Your task to perform on an android device: refresh tabs in the chrome app Image 0: 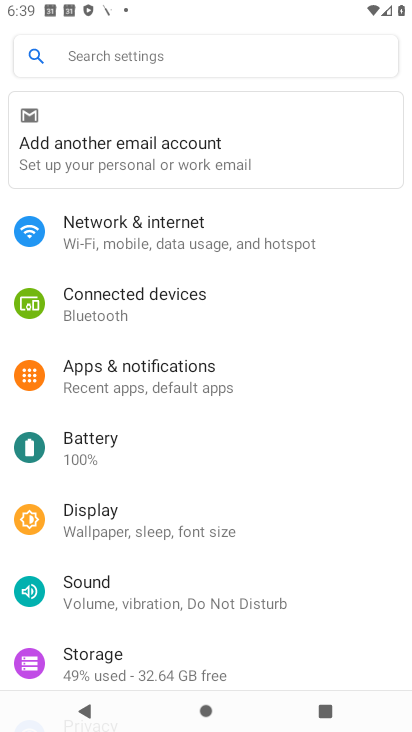
Step 0: press home button
Your task to perform on an android device: refresh tabs in the chrome app Image 1: 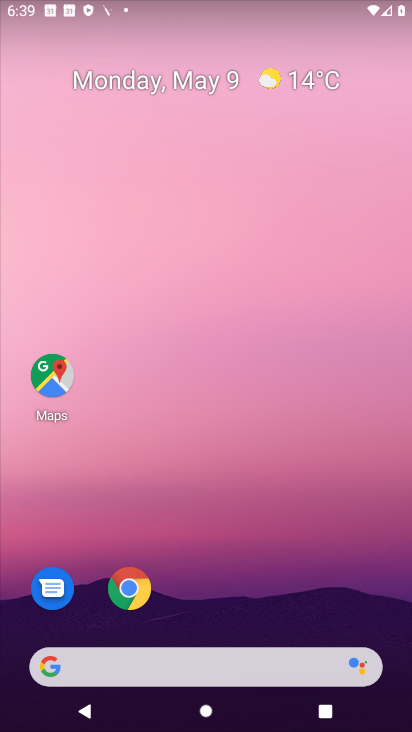
Step 1: click (136, 579)
Your task to perform on an android device: refresh tabs in the chrome app Image 2: 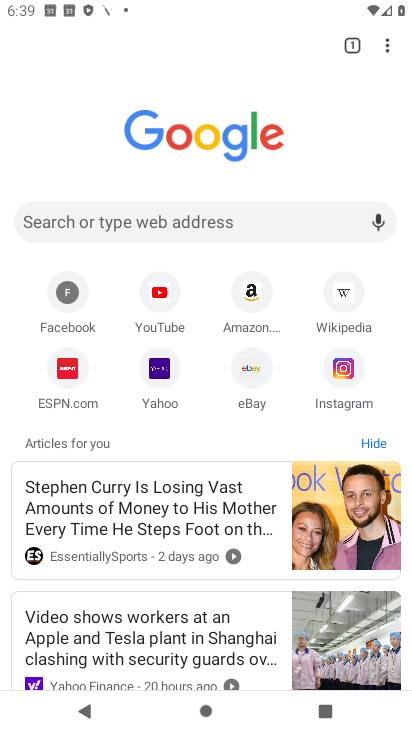
Step 2: click (385, 41)
Your task to perform on an android device: refresh tabs in the chrome app Image 3: 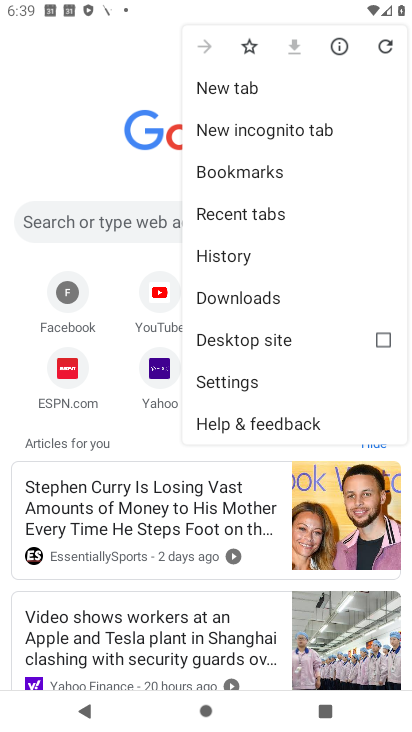
Step 3: click (380, 48)
Your task to perform on an android device: refresh tabs in the chrome app Image 4: 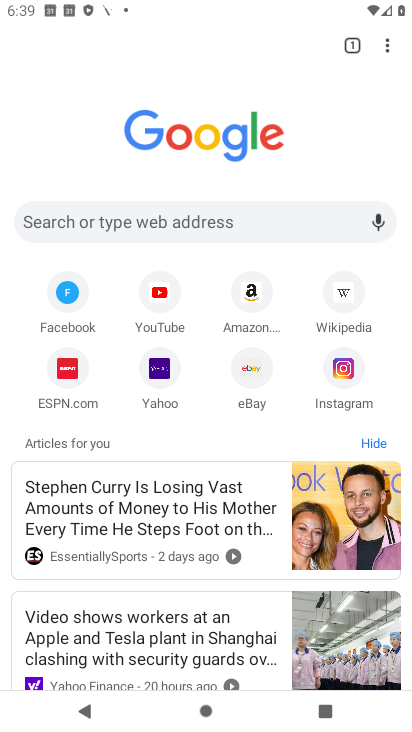
Step 4: task complete